Your task to perform on an android device: search for starred emails in the gmail app Image 0: 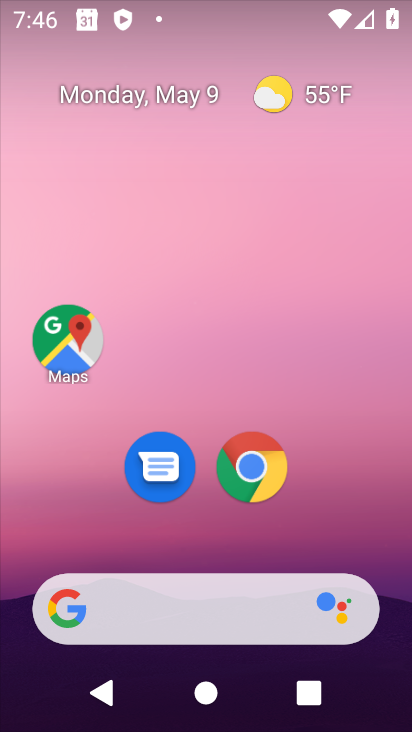
Step 0: drag from (356, 558) to (362, 2)
Your task to perform on an android device: search for starred emails in the gmail app Image 1: 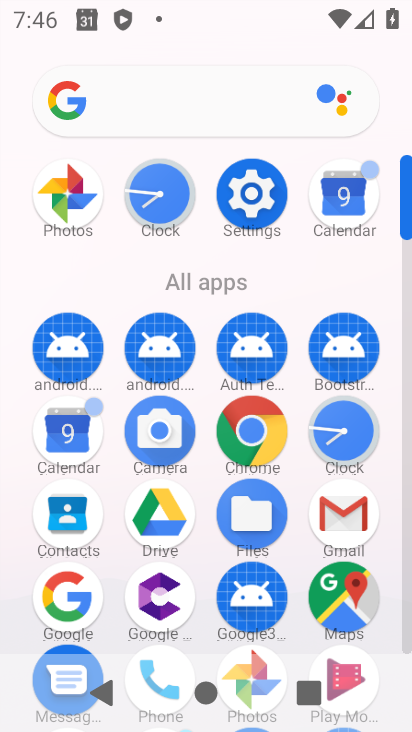
Step 1: click (341, 520)
Your task to perform on an android device: search for starred emails in the gmail app Image 2: 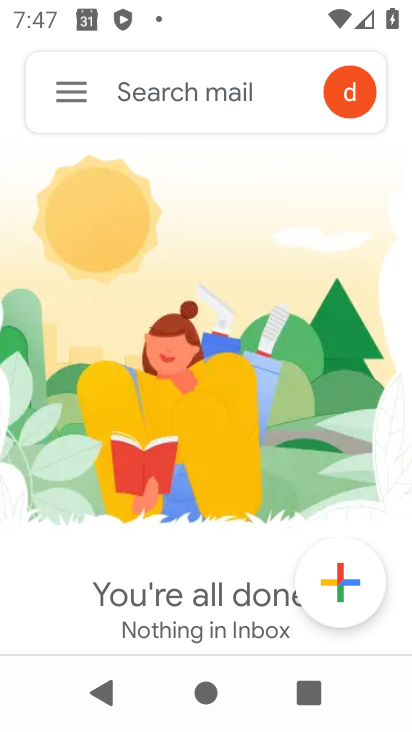
Step 2: click (63, 92)
Your task to perform on an android device: search for starred emails in the gmail app Image 3: 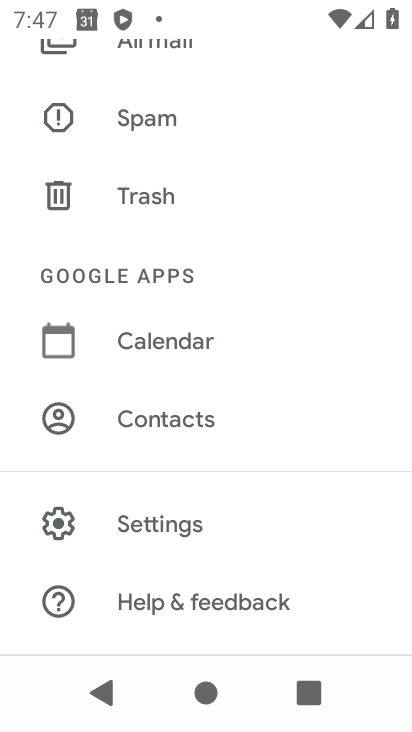
Step 3: drag from (262, 316) to (301, 582)
Your task to perform on an android device: search for starred emails in the gmail app Image 4: 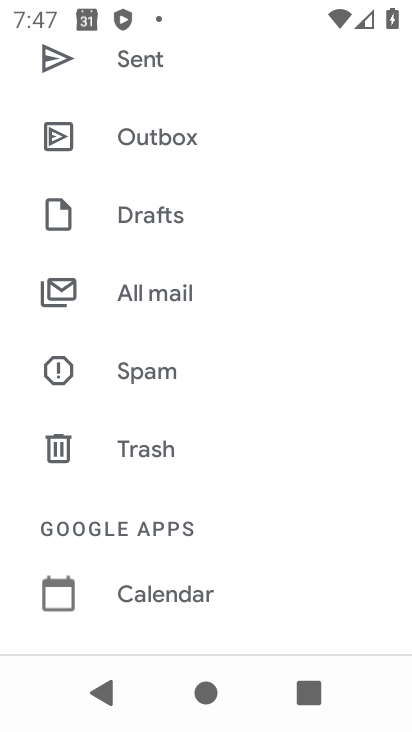
Step 4: drag from (215, 297) to (259, 614)
Your task to perform on an android device: search for starred emails in the gmail app Image 5: 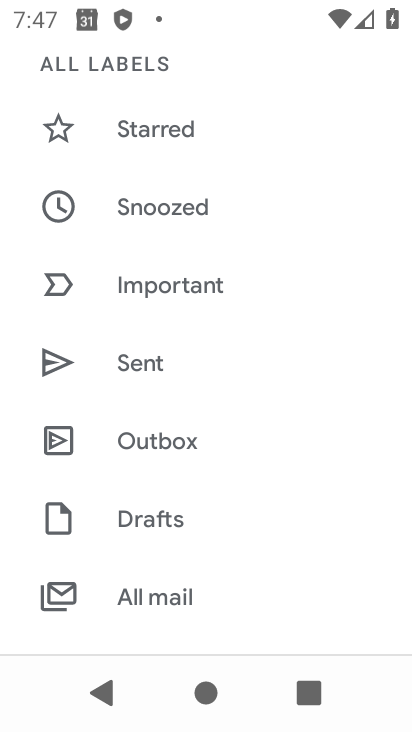
Step 5: click (153, 126)
Your task to perform on an android device: search for starred emails in the gmail app Image 6: 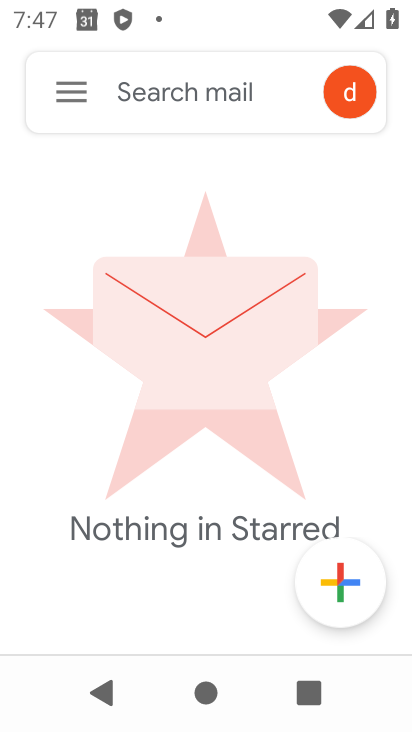
Step 6: task complete